Your task to perform on an android device: check battery use Image 0: 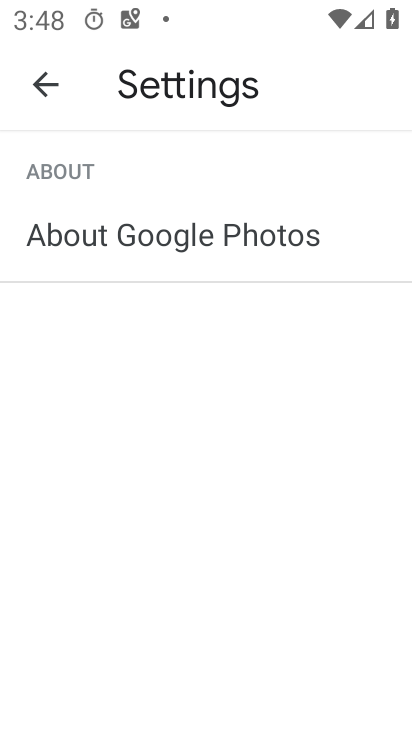
Step 0: press home button
Your task to perform on an android device: check battery use Image 1: 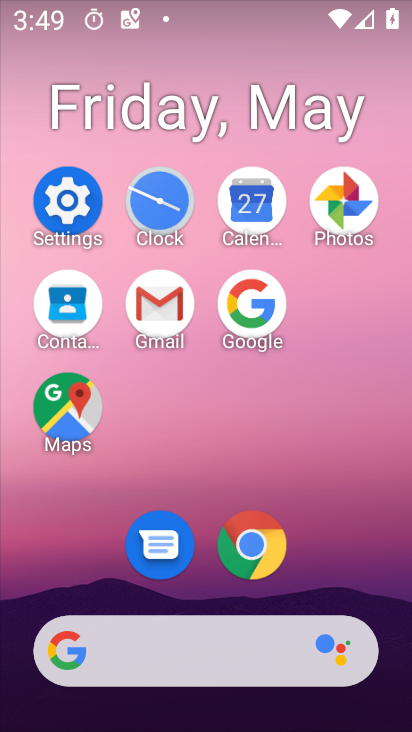
Step 1: click (45, 201)
Your task to perform on an android device: check battery use Image 2: 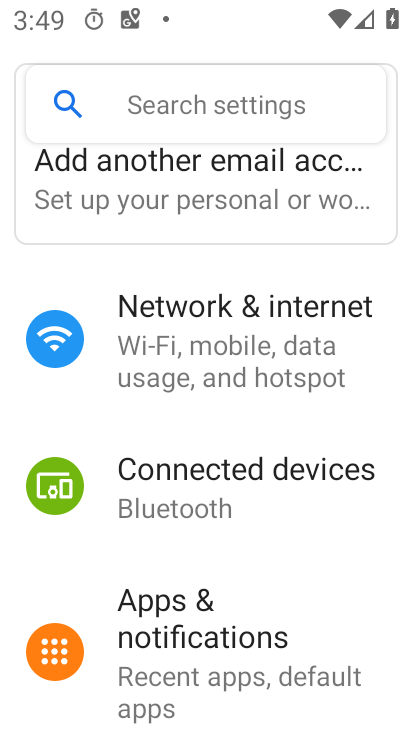
Step 2: drag from (307, 637) to (271, 176)
Your task to perform on an android device: check battery use Image 3: 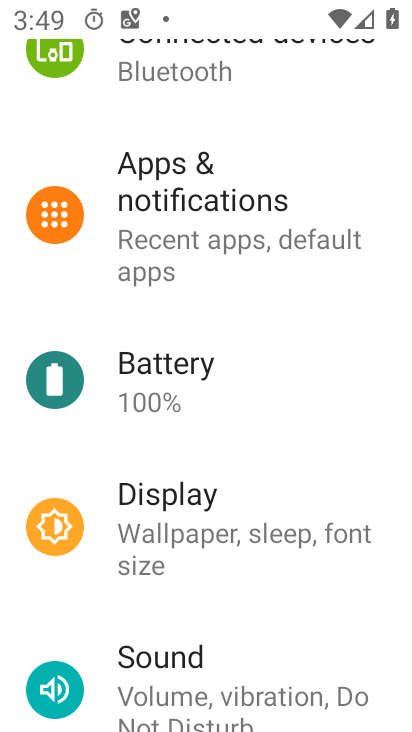
Step 3: click (251, 392)
Your task to perform on an android device: check battery use Image 4: 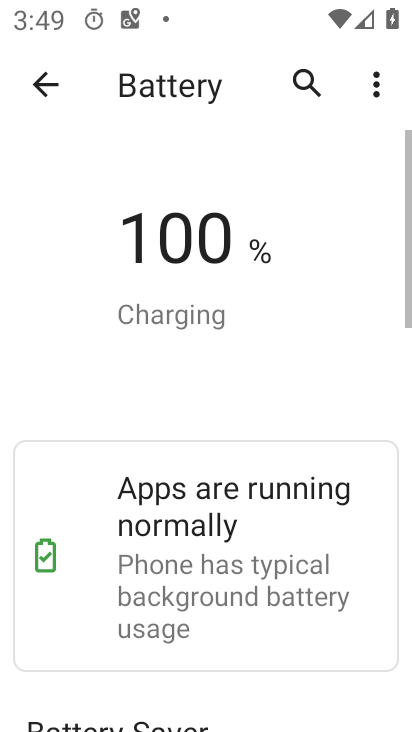
Step 4: click (378, 76)
Your task to perform on an android device: check battery use Image 5: 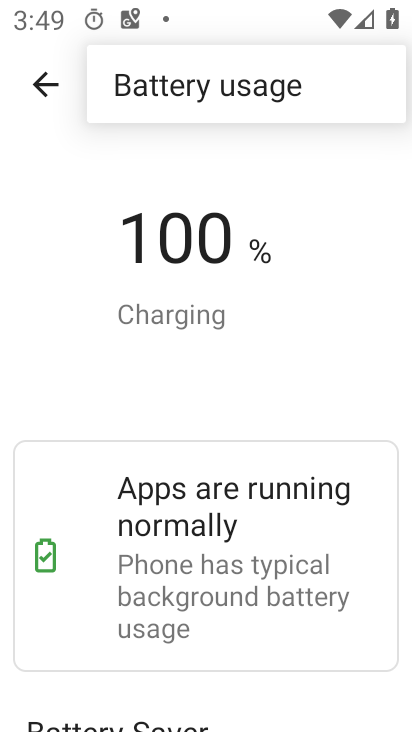
Step 5: click (273, 92)
Your task to perform on an android device: check battery use Image 6: 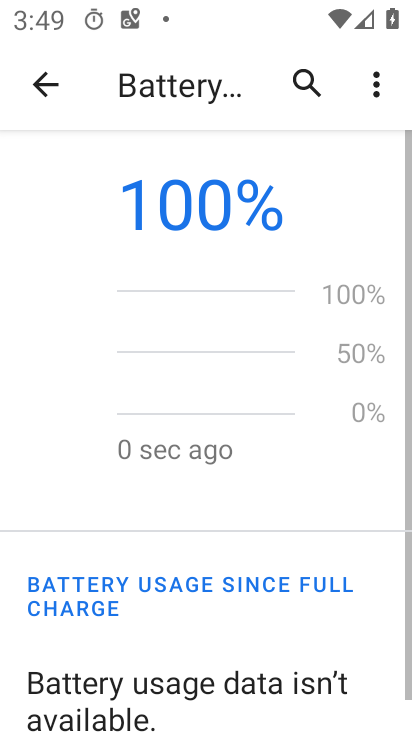
Step 6: task complete